Your task to perform on an android device: turn off notifications settings in the gmail app Image 0: 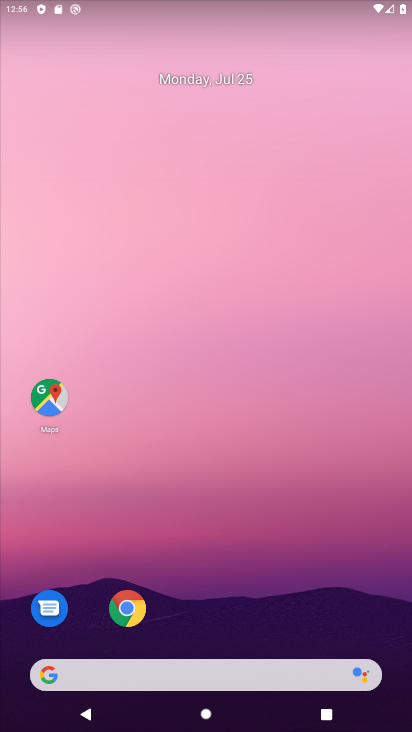
Step 0: drag from (178, 668) to (319, 48)
Your task to perform on an android device: turn off notifications settings in the gmail app Image 1: 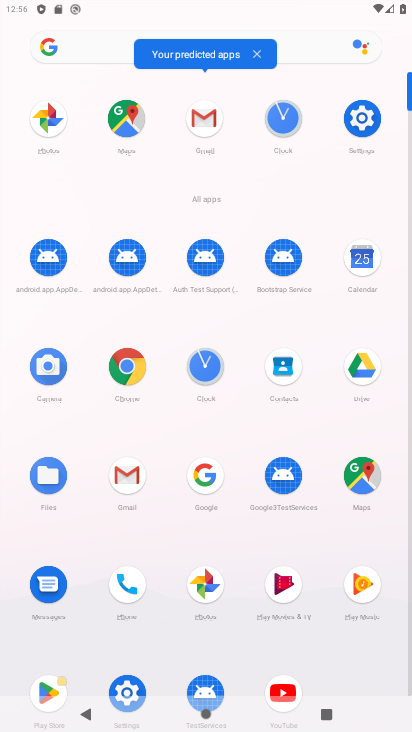
Step 1: click (206, 116)
Your task to perform on an android device: turn off notifications settings in the gmail app Image 2: 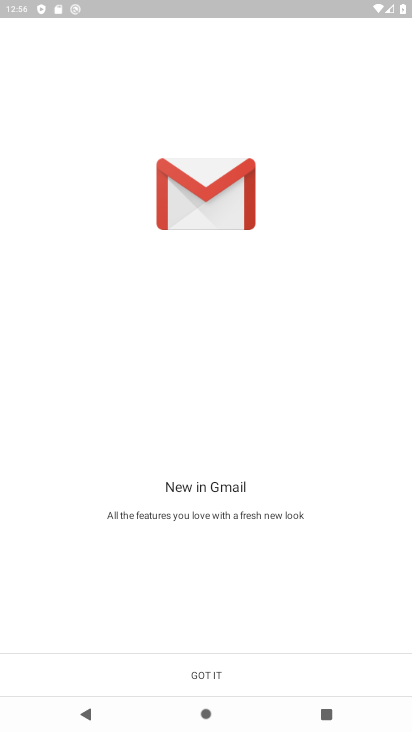
Step 2: click (207, 674)
Your task to perform on an android device: turn off notifications settings in the gmail app Image 3: 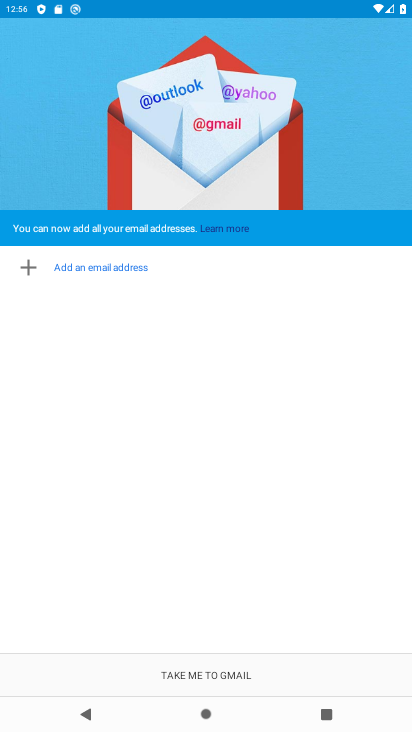
Step 3: click (207, 674)
Your task to perform on an android device: turn off notifications settings in the gmail app Image 4: 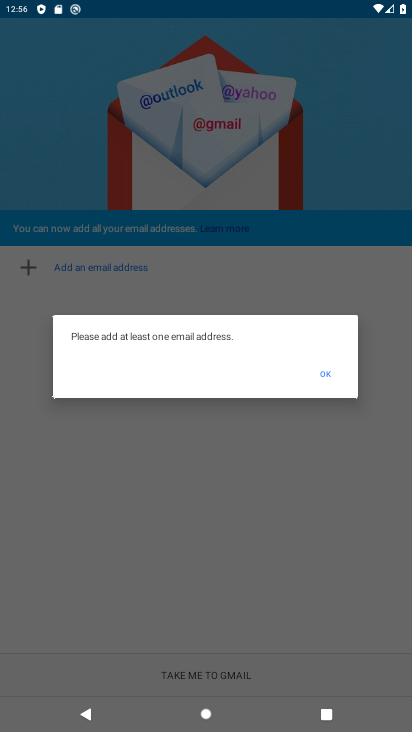
Step 4: click (322, 370)
Your task to perform on an android device: turn off notifications settings in the gmail app Image 5: 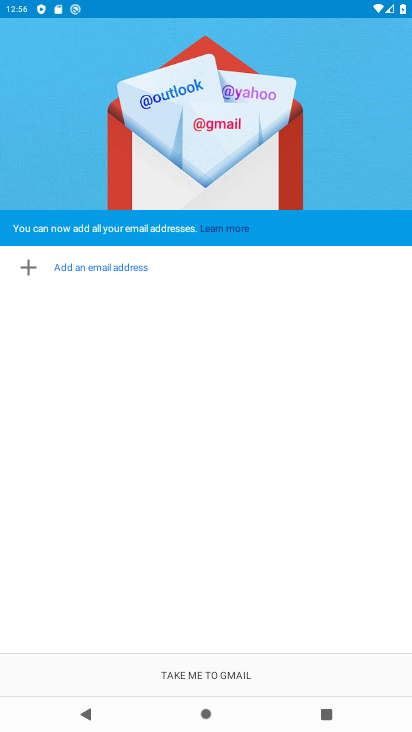
Step 5: task complete